Your task to perform on an android device: Go to eBay Image 0: 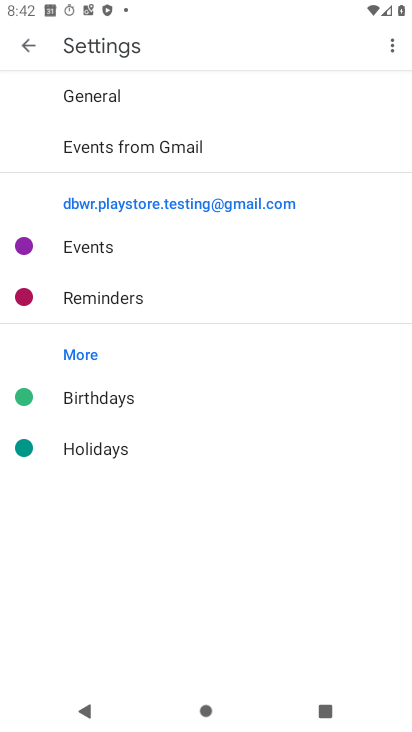
Step 0: press home button
Your task to perform on an android device: Go to eBay Image 1: 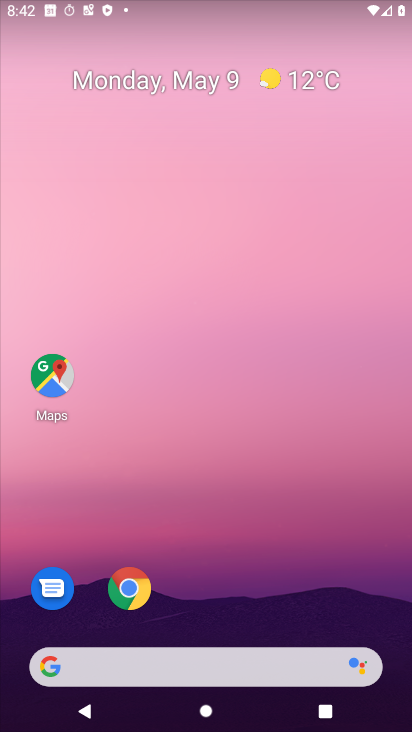
Step 1: drag from (217, 668) to (322, 210)
Your task to perform on an android device: Go to eBay Image 2: 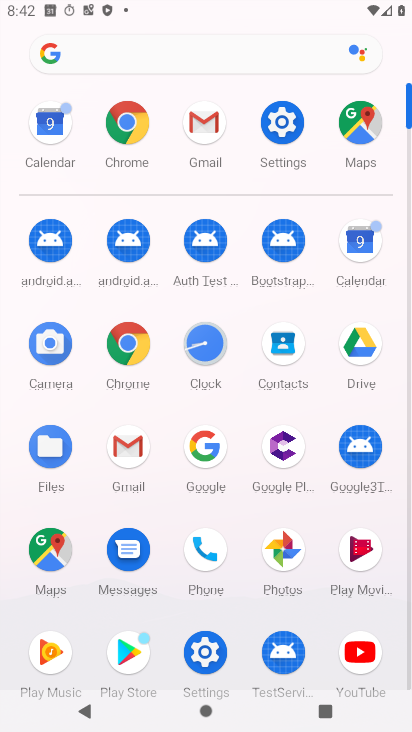
Step 2: click (128, 127)
Your task to perform on an android device: Go to eBay Image 3: 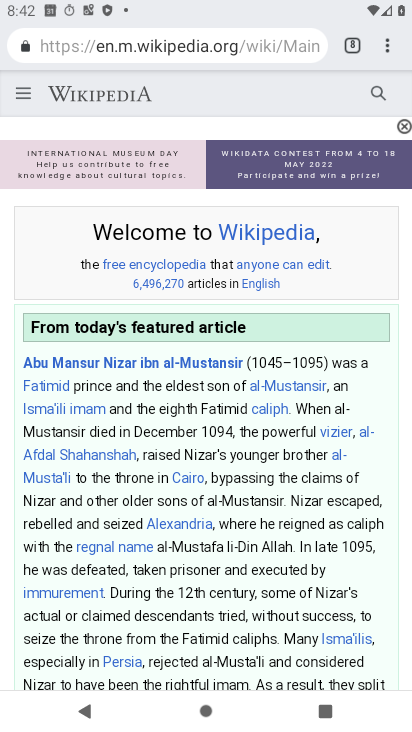
Step 3: drag from (385, 49) to (290, 94)
Your task to perform on an android device: Go to eBay Image 4: 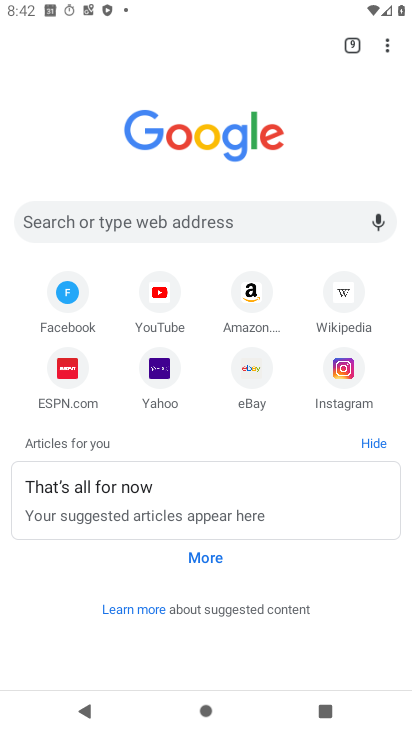
Step 4: click (250, 370)
Your task to perform on an android device: Go to eBay Image 5: 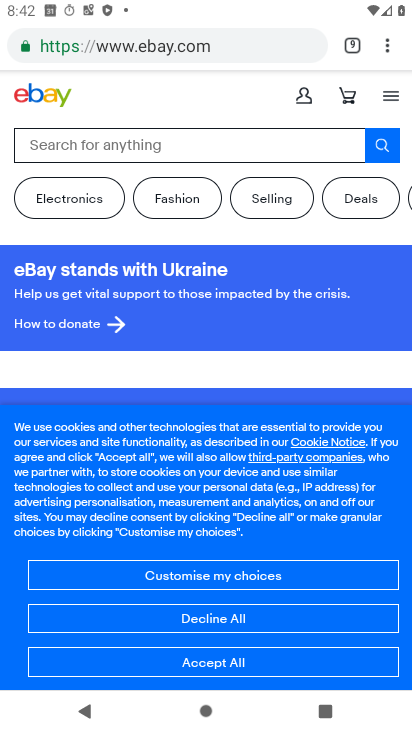
Step 5: task complete